Your task to perform on an android device: toggle data saver in the chrome app Image 0: 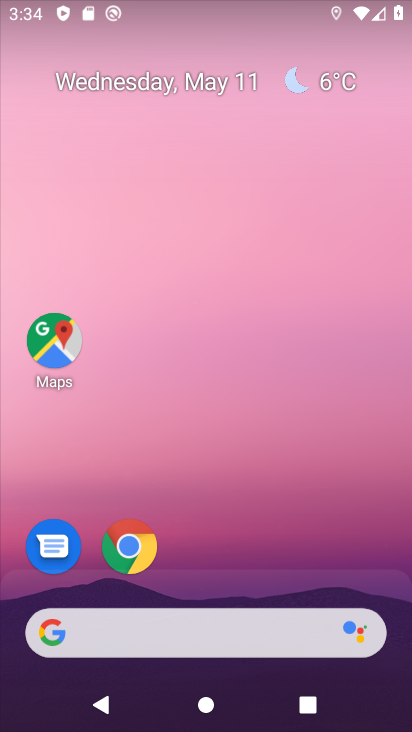
Step 0: click (125, 553)
Your task to perform on an android device: toggle data saver in the chrome app Image 1: 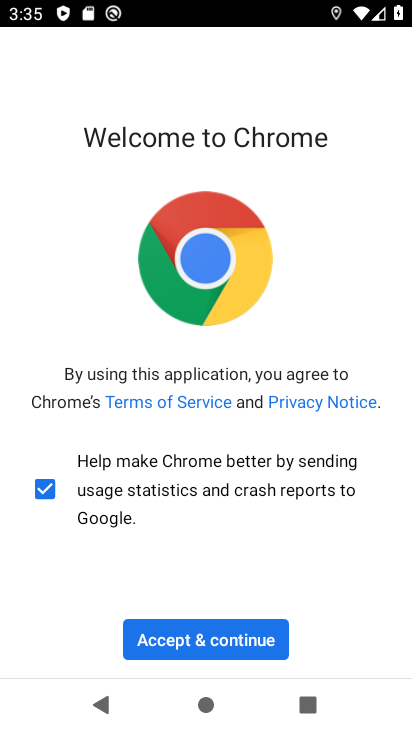
Step 1: click (171, 642)
Your task to perform on an android device: toggle data saver in the chrome app Image 2: 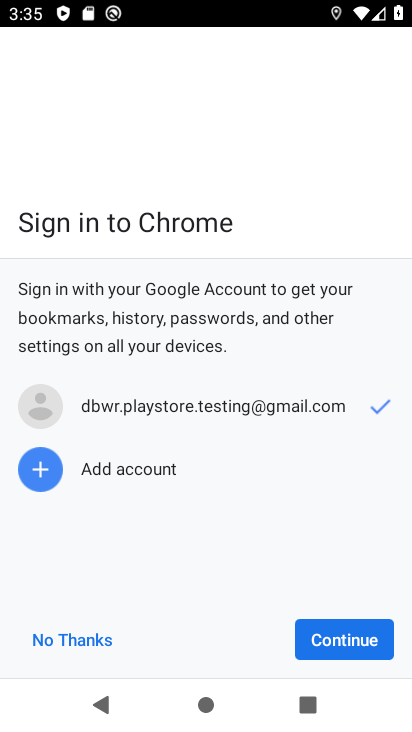
Step 2: click (347, 647)
Your task to perform on an android device: toggle data saver in the chrome app Image 3: 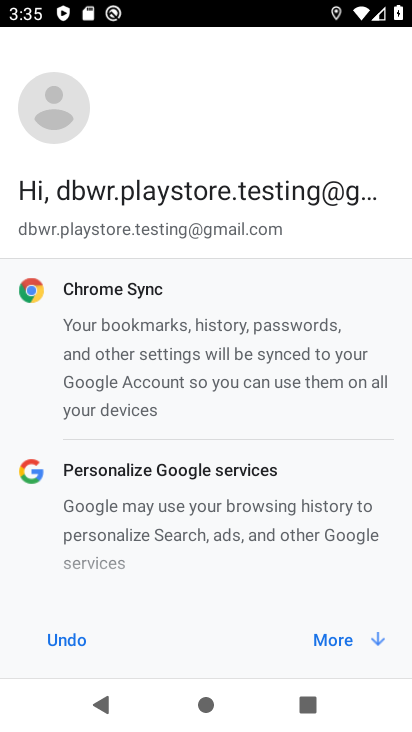
Step 3: click (378, 638)
Your task to perform on an android device: toggle data saver in the chrome app Image 4: 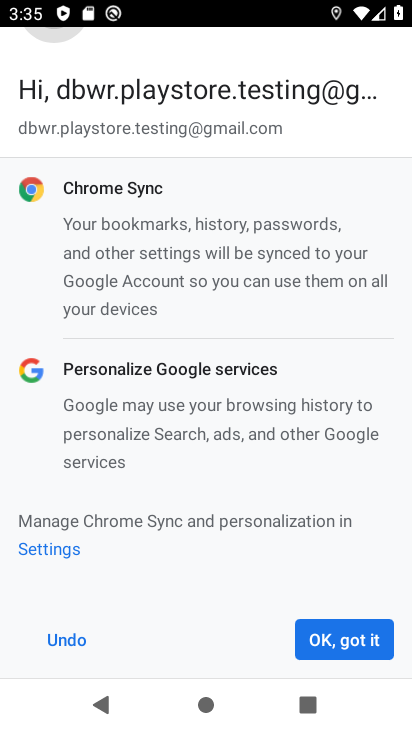
Step 4: click (378, 638)
Your task to perform on an android device: toggle data saver in the chrome app Image 5: 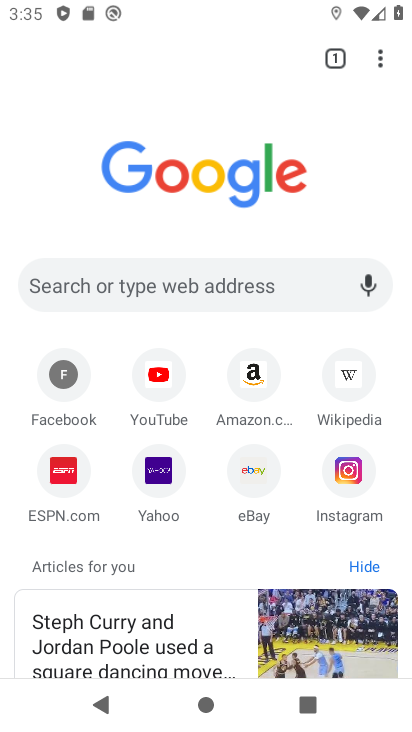
Step 5: drag from (381, 55) to (296, 501)
Your task to perform on an android device: toggle data saver in the chrome app Image 6: 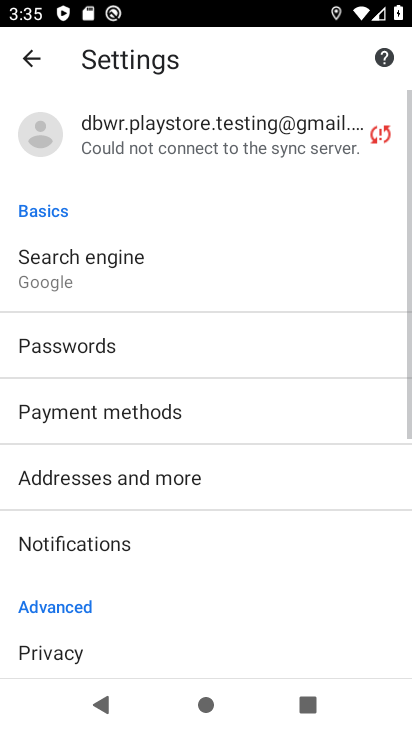
Step 6: drag from (227, 652) to (339, 264)
Your task to perform on an android device: toggle data saver in the chrome app Image 7: 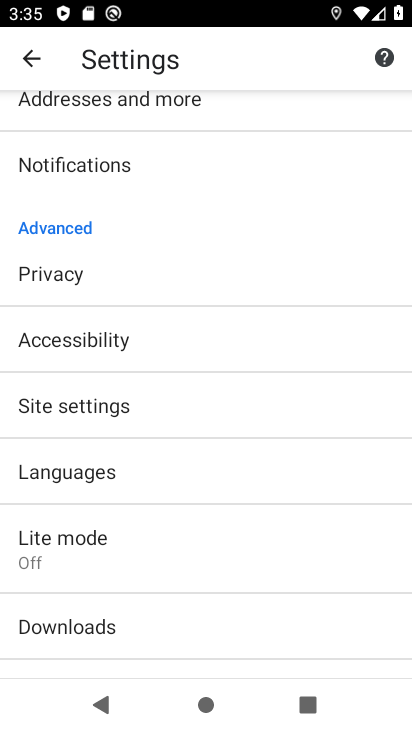
Step 7: click (165, 548)
Your task to perform on an android device: toggle data saver in the chrome app Image 8: 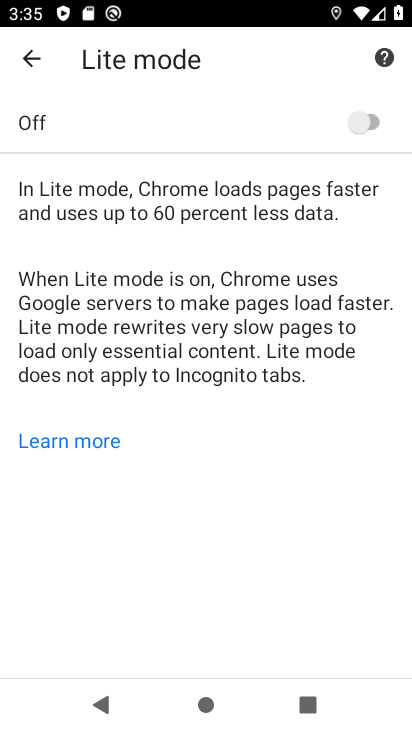
Step 8: click (396, 124)
Your task to perform on an android device: toggle data saver in the chrome app Image 9: 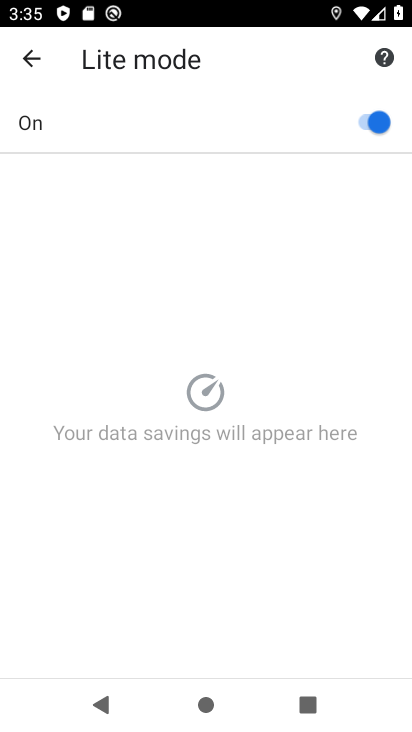
Step 9: task complete